Your task to perform on an android device: Turn on the flashlight Image 0: 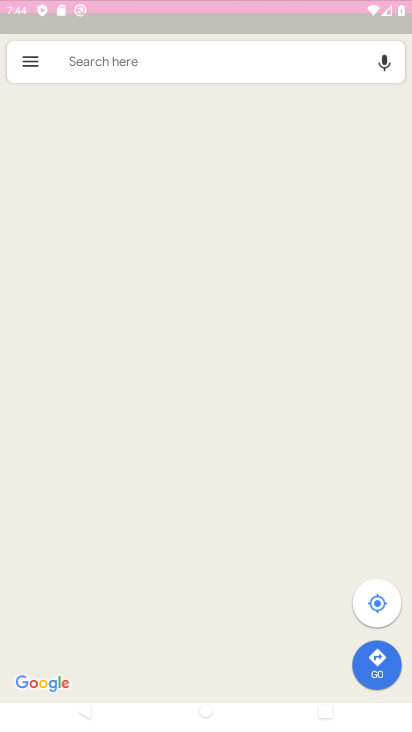
Step 0: press home button
Your task to perform on an android device: Turn on the flashlight Image 1: 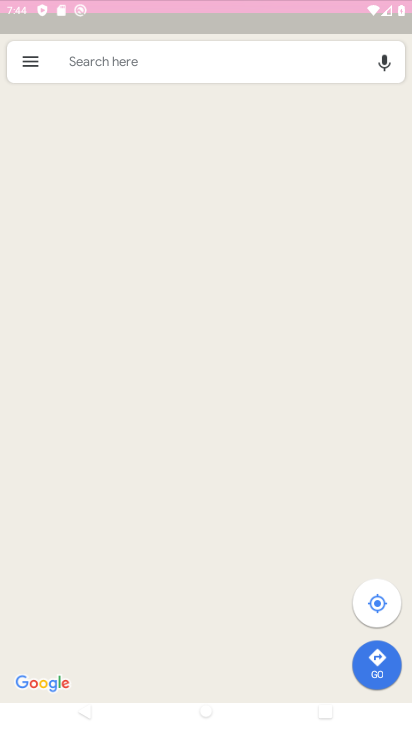
Step 1: click (272, 32)
Your task to perform on an android device: Turn on the flashlight Image 2: 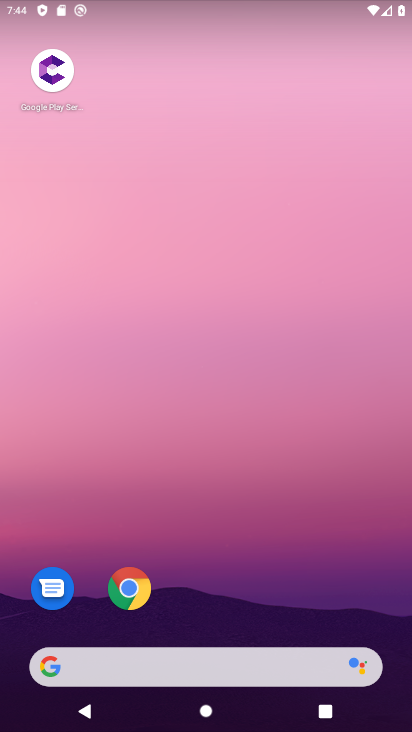
Step 2: drag from (227, 589) to (236, 123)
Your task to perform on an android device: Turn on the flashlight Image 3: 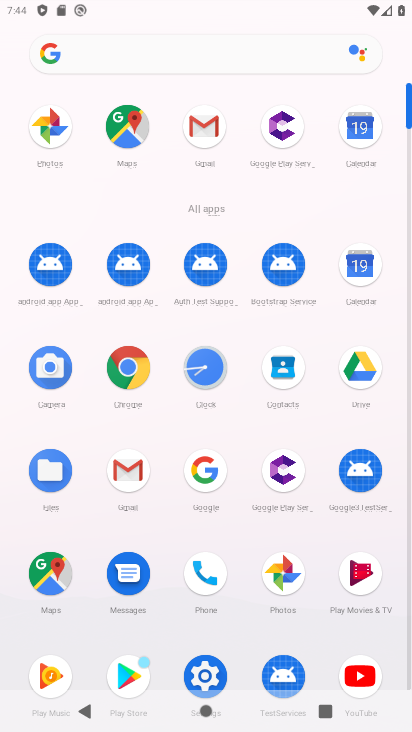
Step 3: click (204, 661)
Your task to perform on an android device: Turn on the flashlight Image 4: 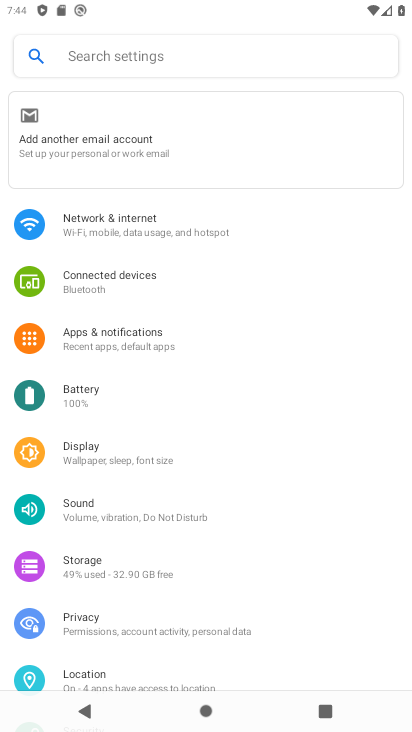
Step 4: click (97, 56)
Your task to perform on an android device: Turn on the flashlight Image 5: 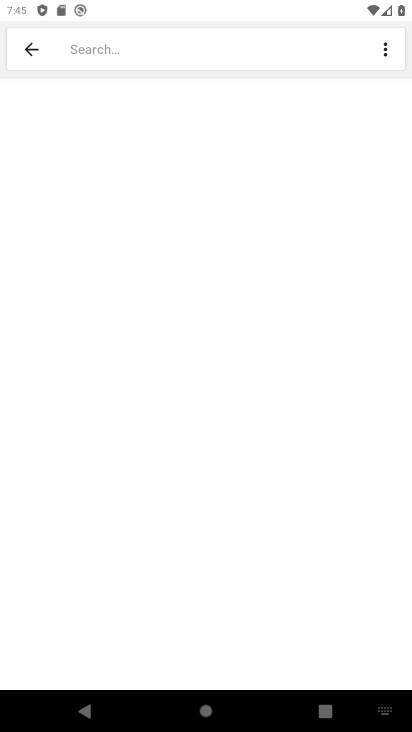
Step 5: type "flashlight"
Your task to perform on an android device: Turn on the flashlight Image 6: 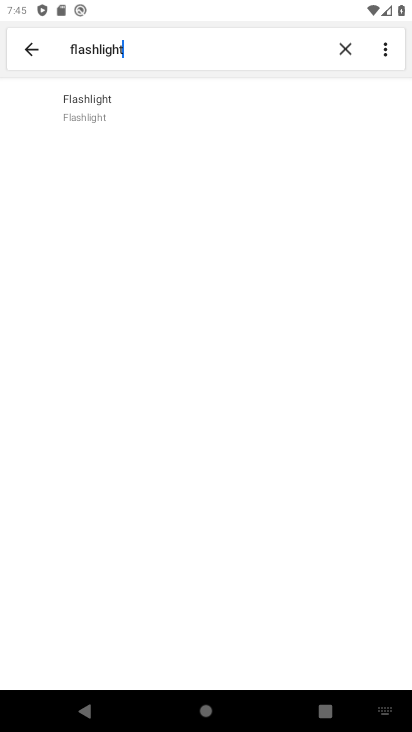
Step 6: click (101, 109)
Your task to perform on an android device: Turn on the flashlight Image 7: 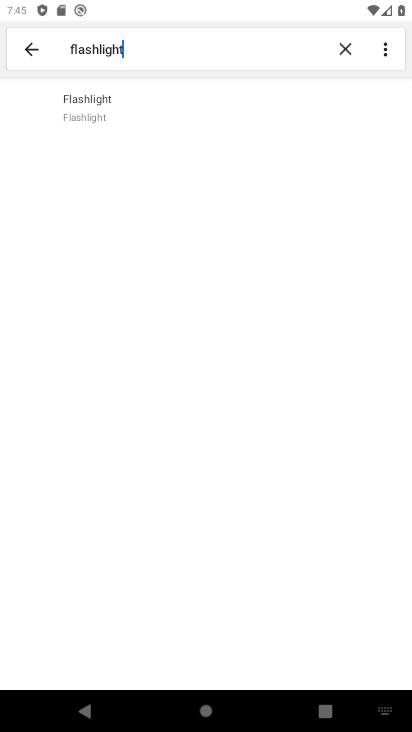
Step 7: click (120, 105)
Your task to perform on an android device: Turn on the flashlight Image 8: 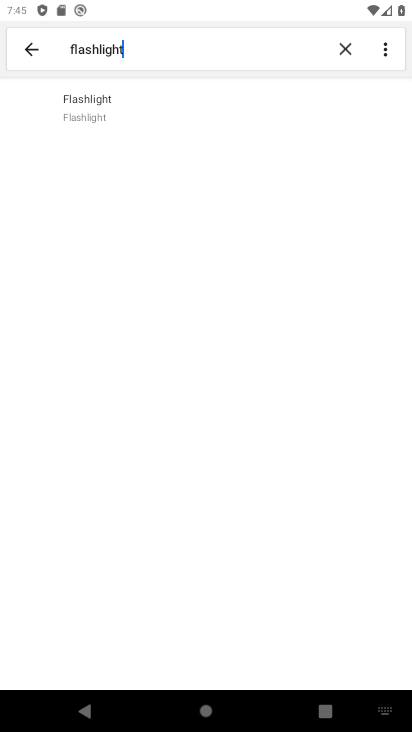
Step 8: task complete